Your task to perform on an android device: open device folders in google photos Image 0: 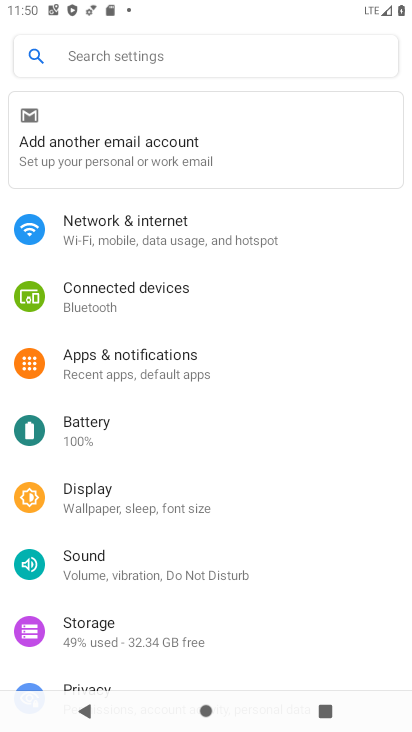
Step 0: press home button
Your task to perform on an android device: open device folders in google photos Image 1: 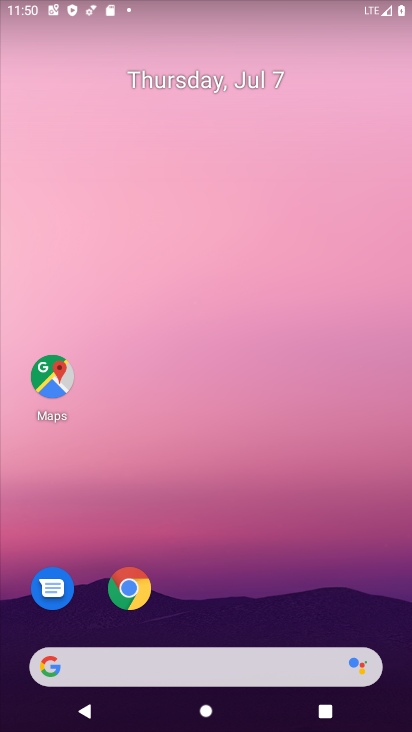
Step 1: drag from (214, 594) to (236, 98)
Your task to perform on an android device: open device folders in google photos Image 2: 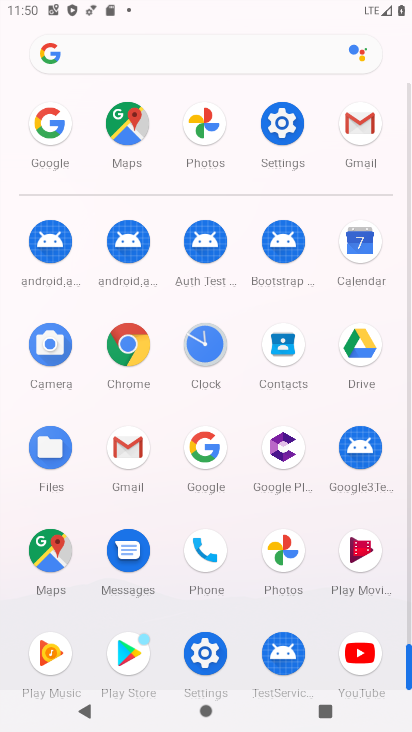
Step 2: click (284, 550)
Your task to perform on an android device: open device folders in google photos Image 3: 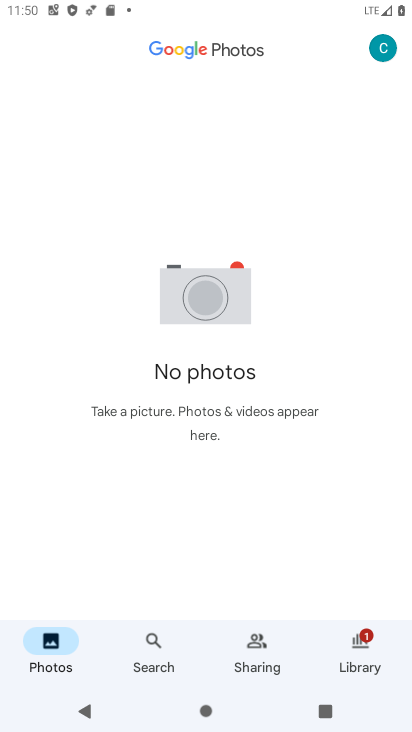
Step 3: click (381, 48)
Your task to perform on an android device: open device folders in google photos Image 4: 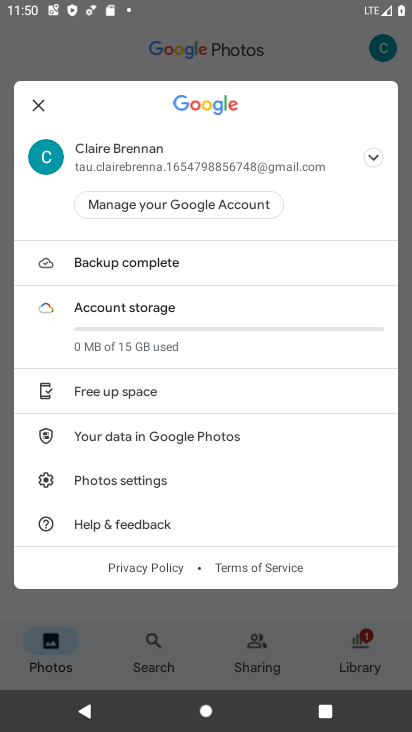
Step 4: task complete